Your task to perform on an android device: Search for Mexican restaurants on Maps Image 0: 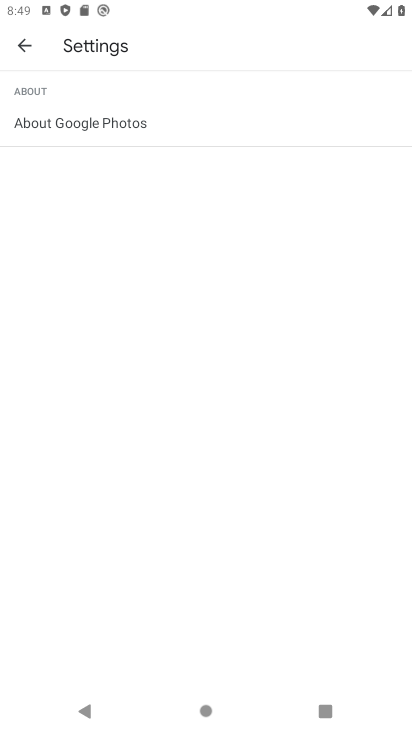
Step 0: press home button
Your task to perform on an android device: Search for Mexican restaurants on Maps Image 1: 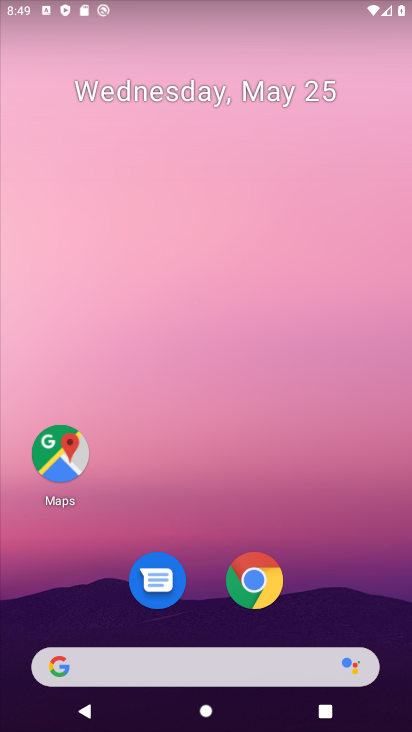
Step 1: click (53, 450)
Your task to perform on an android device: Search for Mexican restaurants on Maps Image 2: 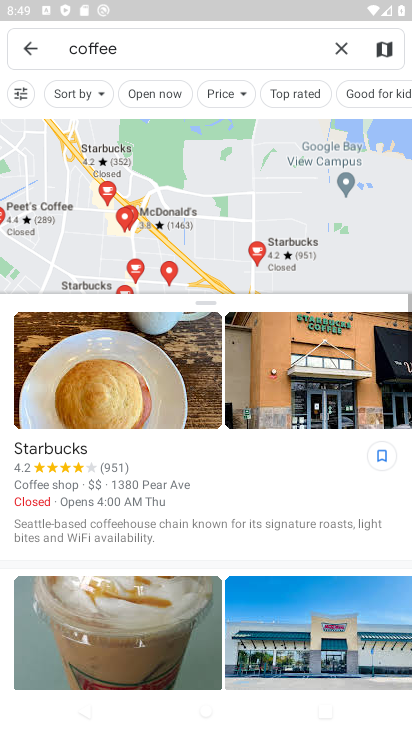
Step 2: click (337, 51)
Your task to perform on an android device: Search for Mexican restaurants on Maps Image 3: 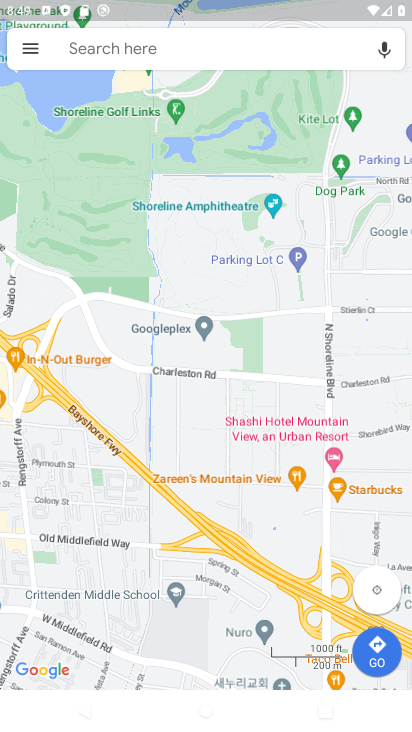
Step 3: click (251, 55)
Your task to perform on an android device: Search for Mexican restaurants on Maps Image 4: 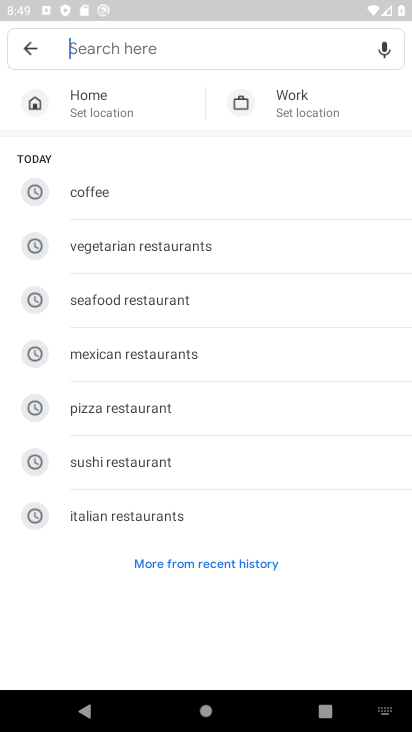
Step 4: click (160, 342)
Your task to perform on an android device: Search for Mexican restaurants on Maps Image 5: 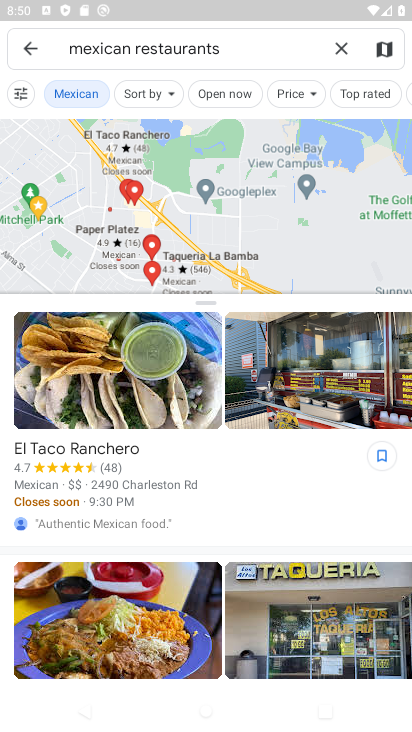
Step 5: task complete